Your task to perform on an android device: allow cookies in the chrome app Image 0: 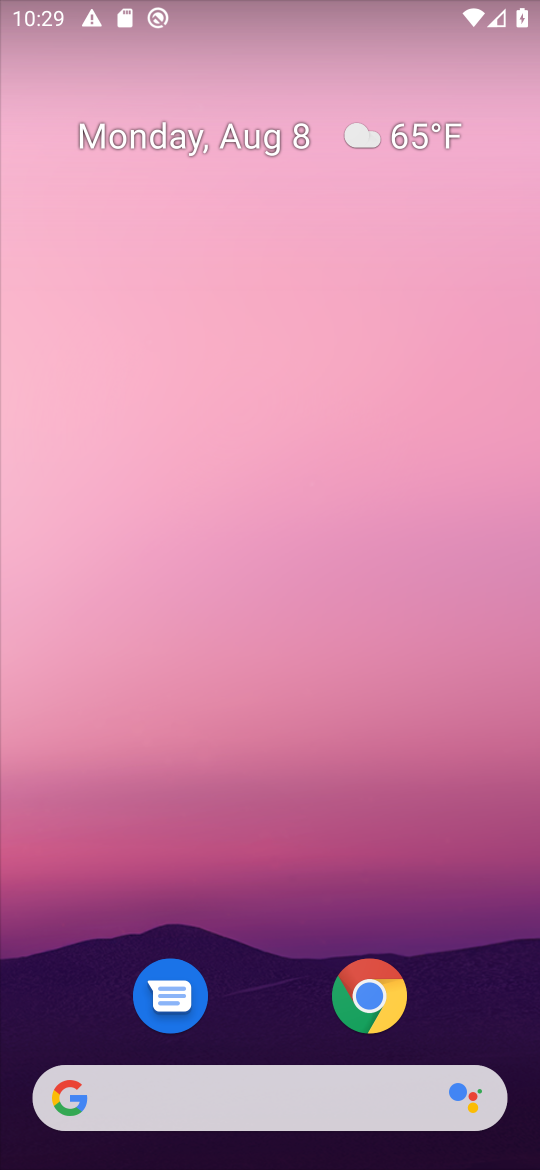
Step 0: press home button
Your task to perform on an android device: allow cookies in the chrome app Image 1: 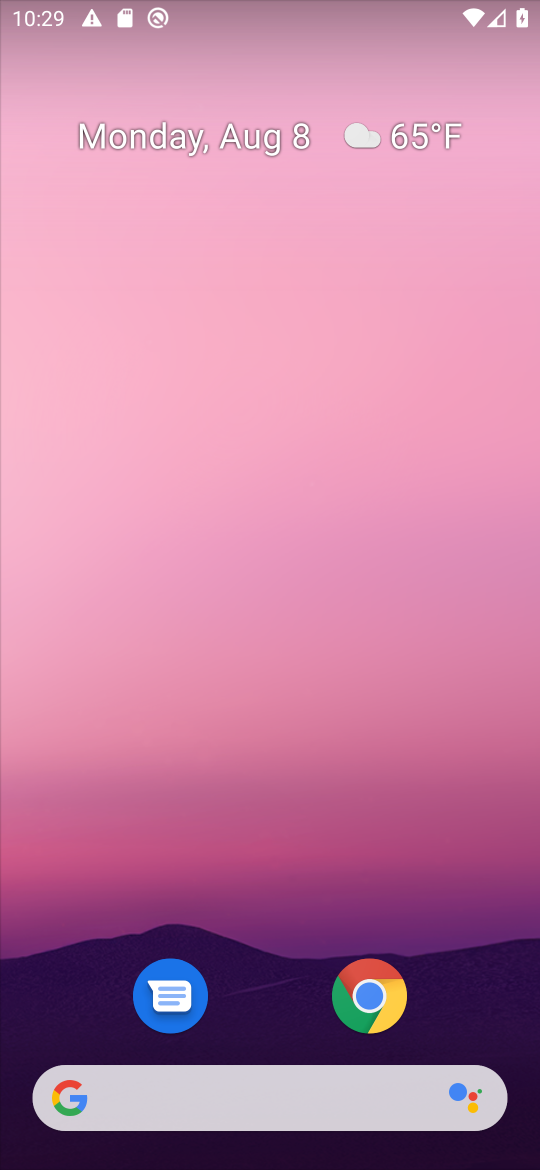
Step 1: click (372, 1012)
Your task to perform on an android device: allow cookies in the chrome app Image 2: 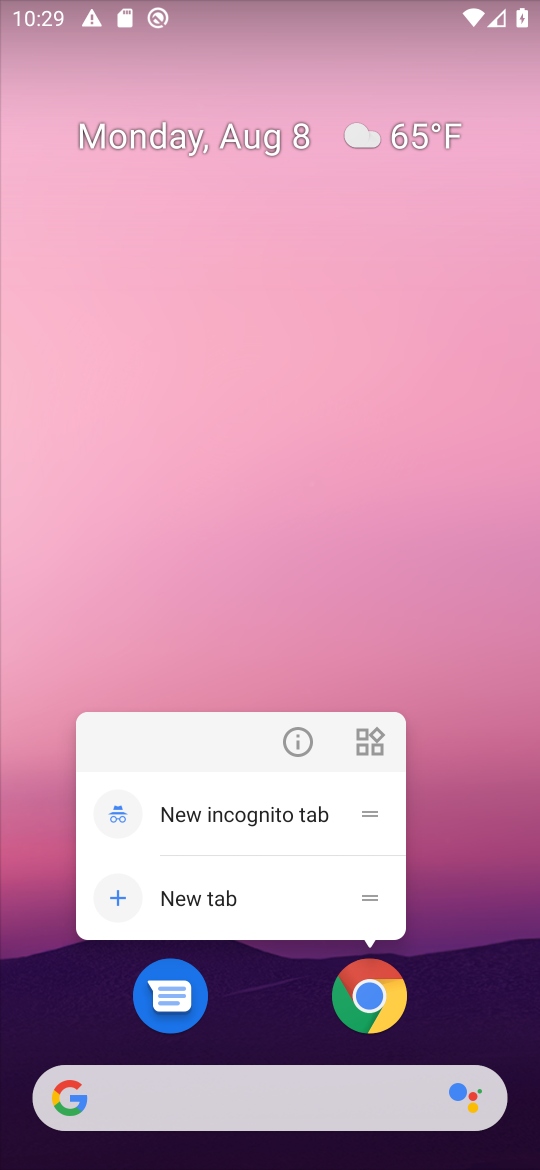
Step 2: click (372, 1012)
Your task to perform on an android device: allow cookies in the chrome app Image 3: 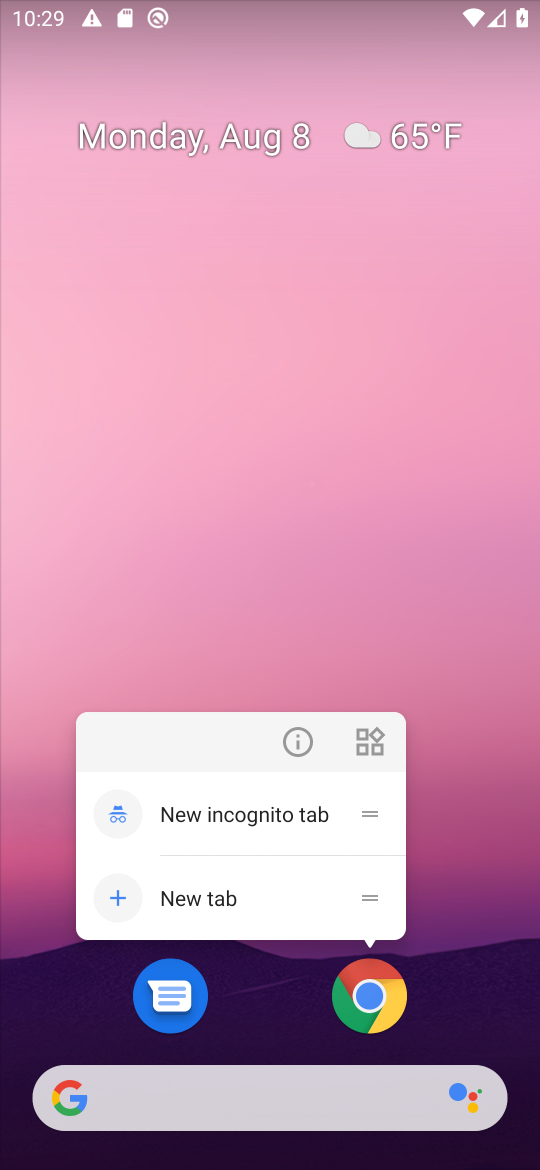
Step 3: click (372, 1012)
Your task to perform on an android device: allow cookies in the chrome app Image 4: 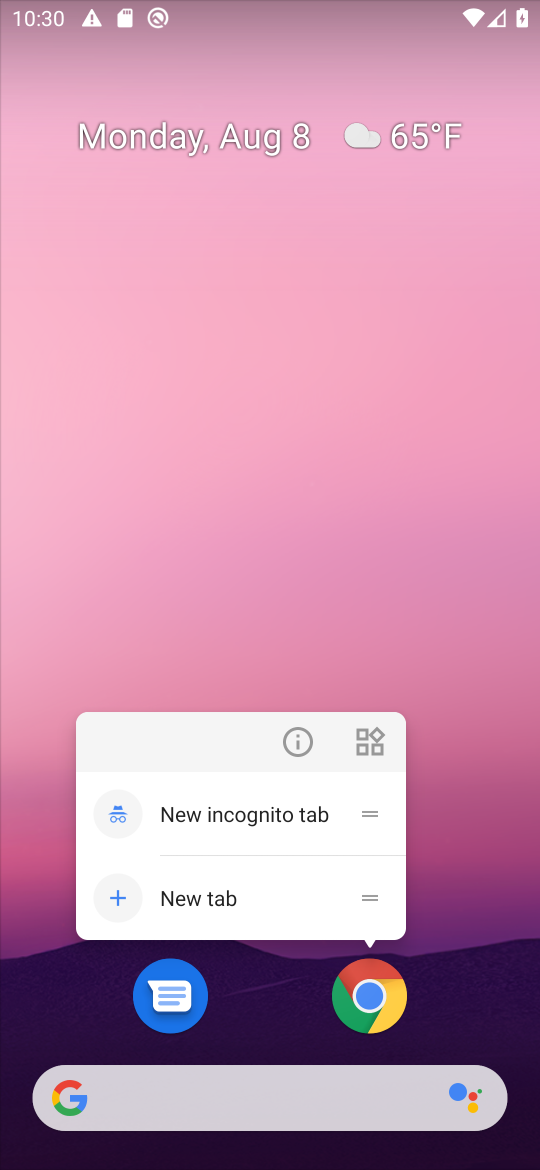
Step 4: click (454, 990)
Your task to perform on an android device: allow cookies in the chrome app Image 5: 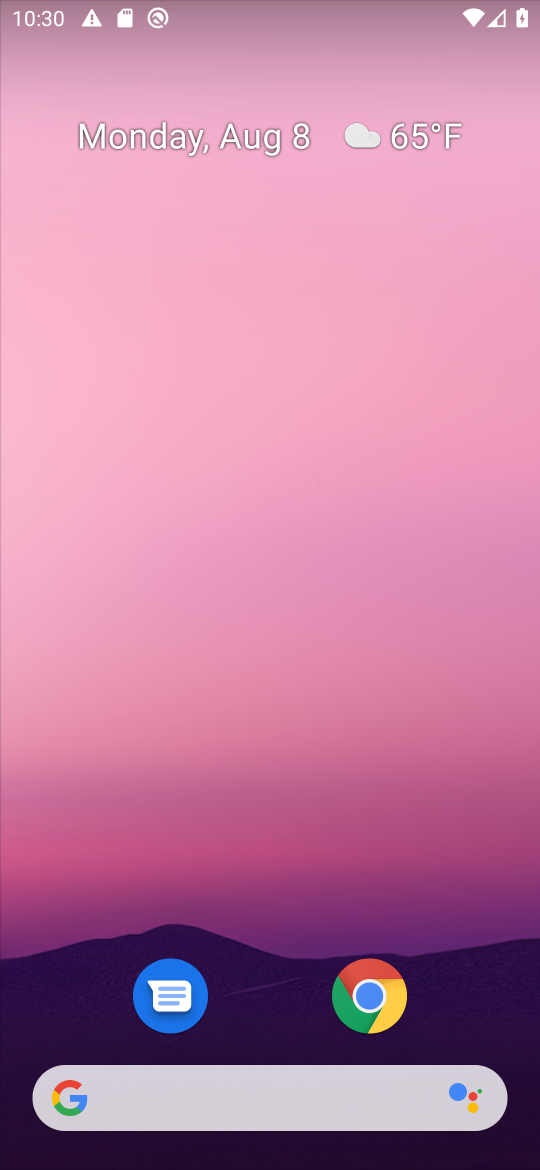
Step 5: drag from (273, 977) to (61, 172)
Your task to perform on an android device: allow cookies in the chrome app Image 6: 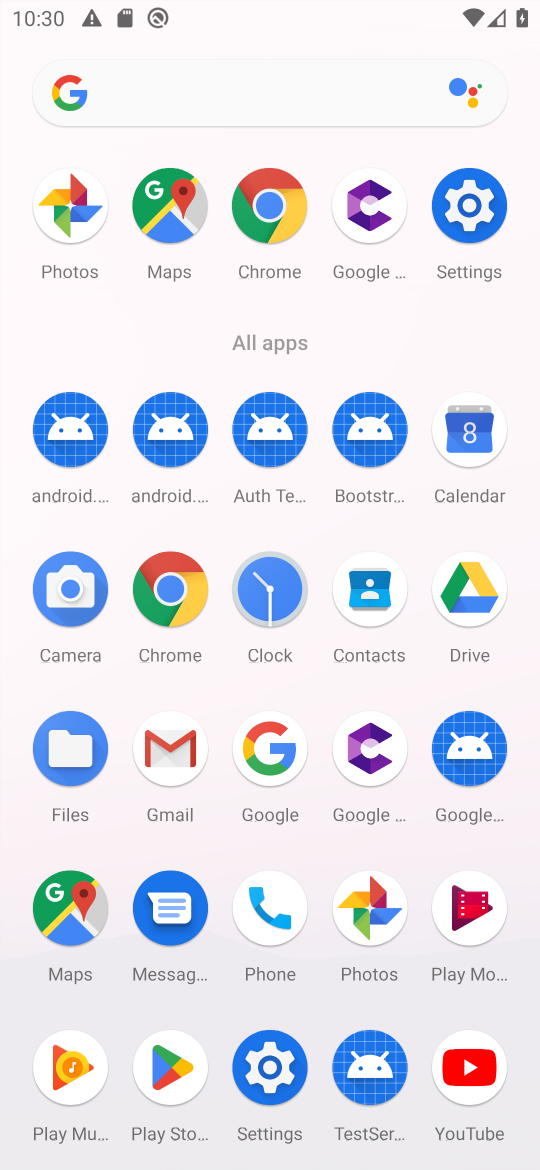
Step 6: click (277, 214)
Your task to perform on an android device: allow cookies in the chrome app Image 7: 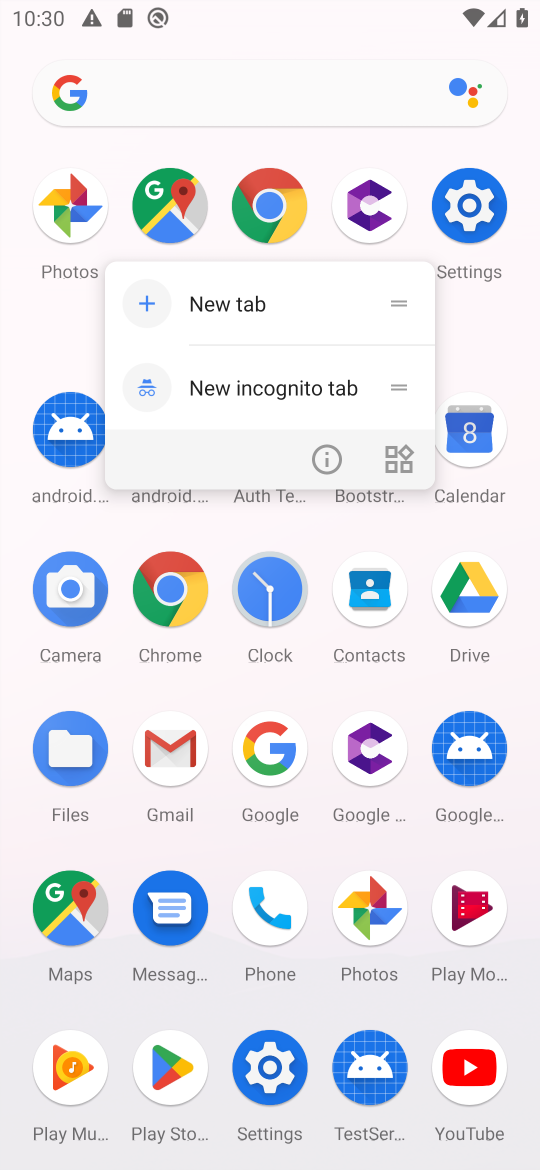
Step 7: click (277, 214)
Your task to perform on an android device: allow cookies in the chrome app Image 8: 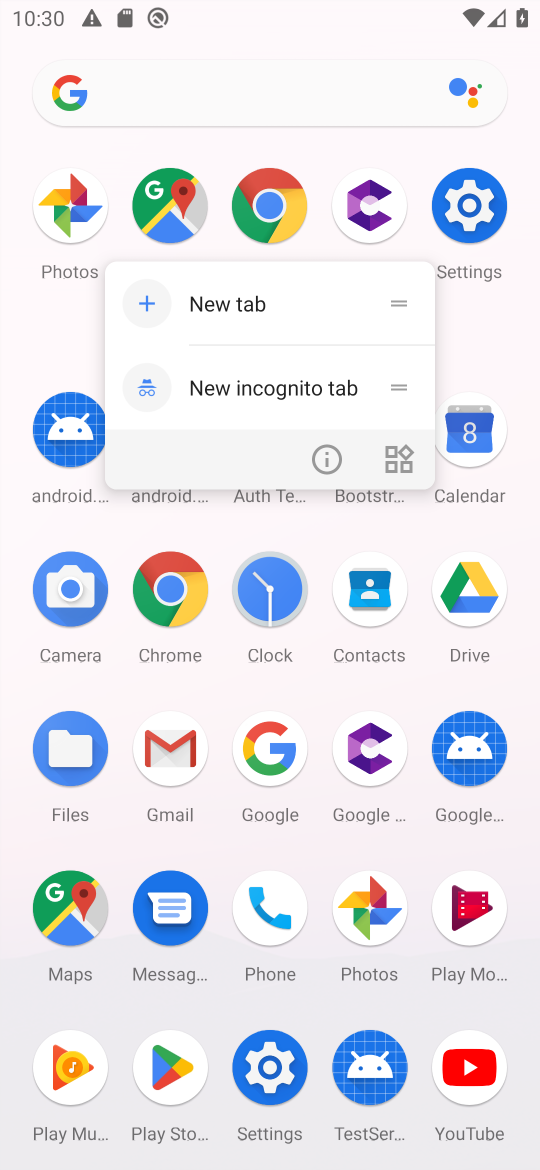
Step 8: click (277, 214)
Your task to perform on an android device: allow cookies in the chrome app Image 9: 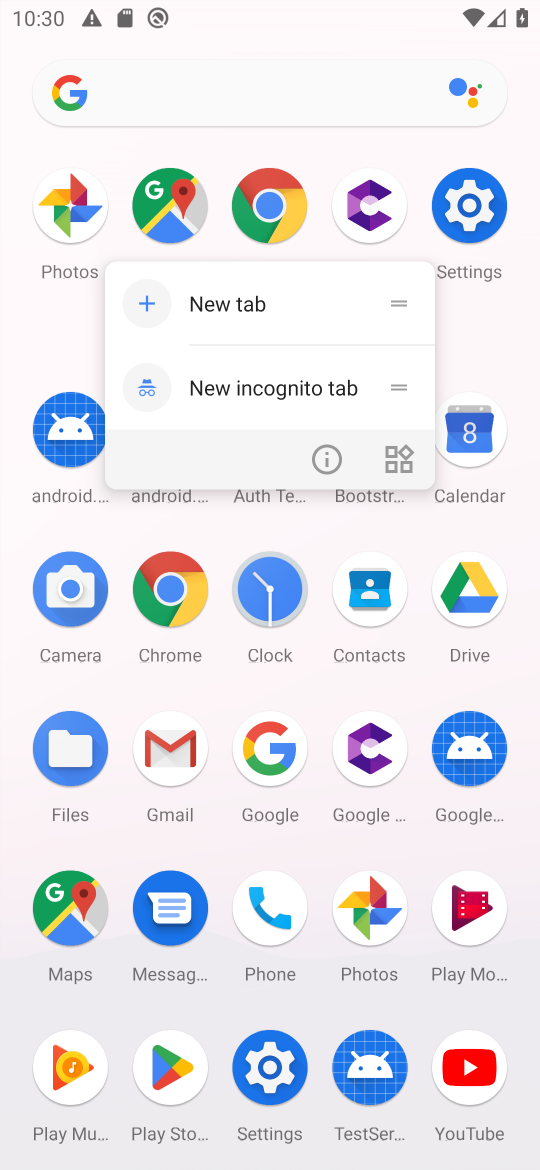
Step 9: click (165, 605)
Your task to perform on an android device: allow cookies in the chrome app Image 10: 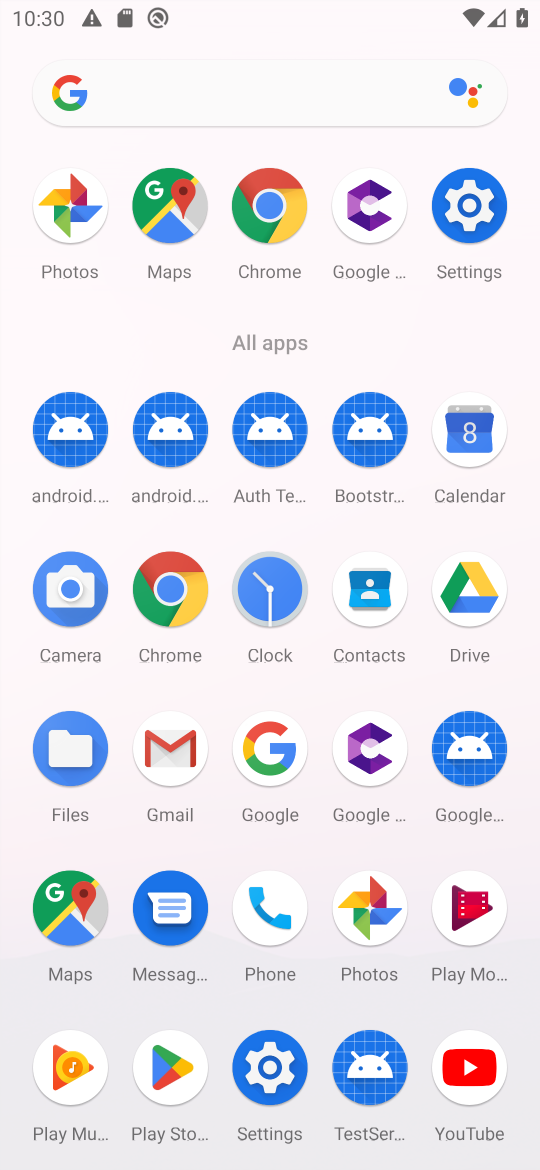
Step 10: click (177, 581)
Your task to perform on an android device: allow cookies in the chrome app Image 11: 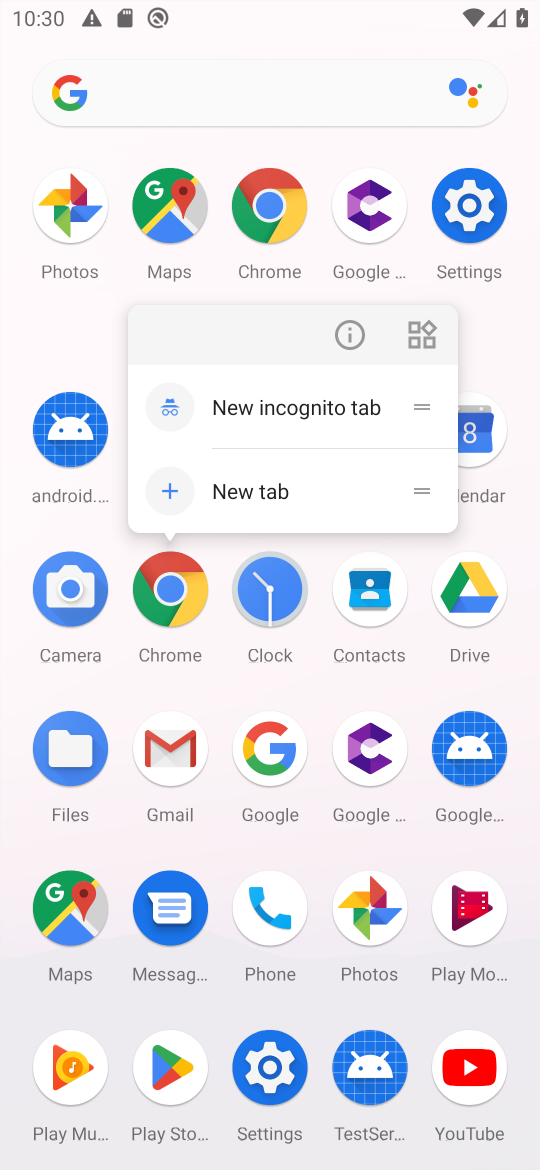
Step 11: click (166, 601)
Your task to perform on an android device: allow cookies in the chrome app Image 12: 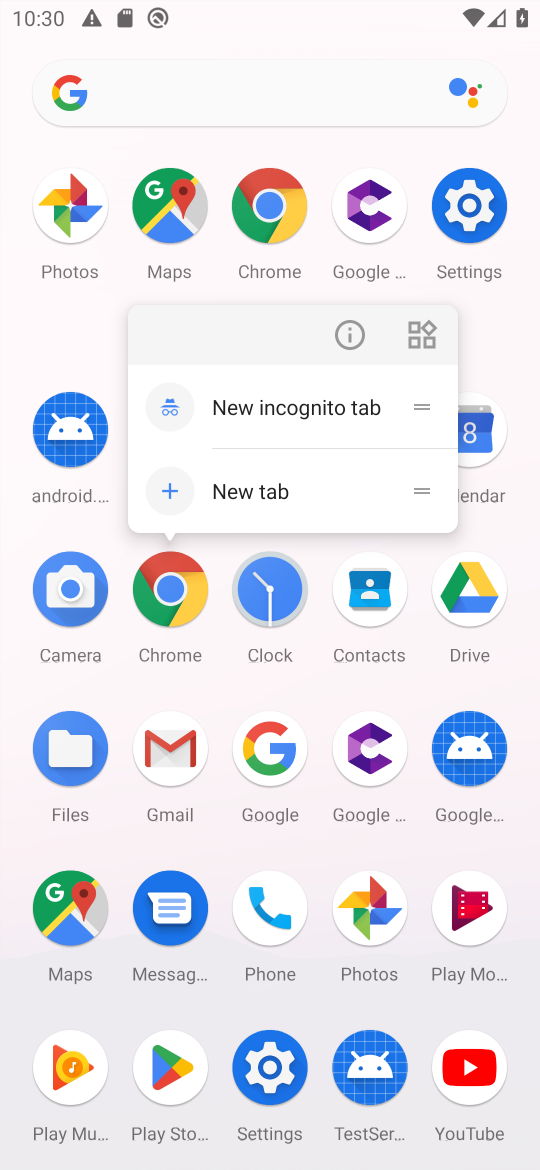
Step 12: click (166, 601)
Your task to perform on an android device: allow cookies in the chrome app Image 13: 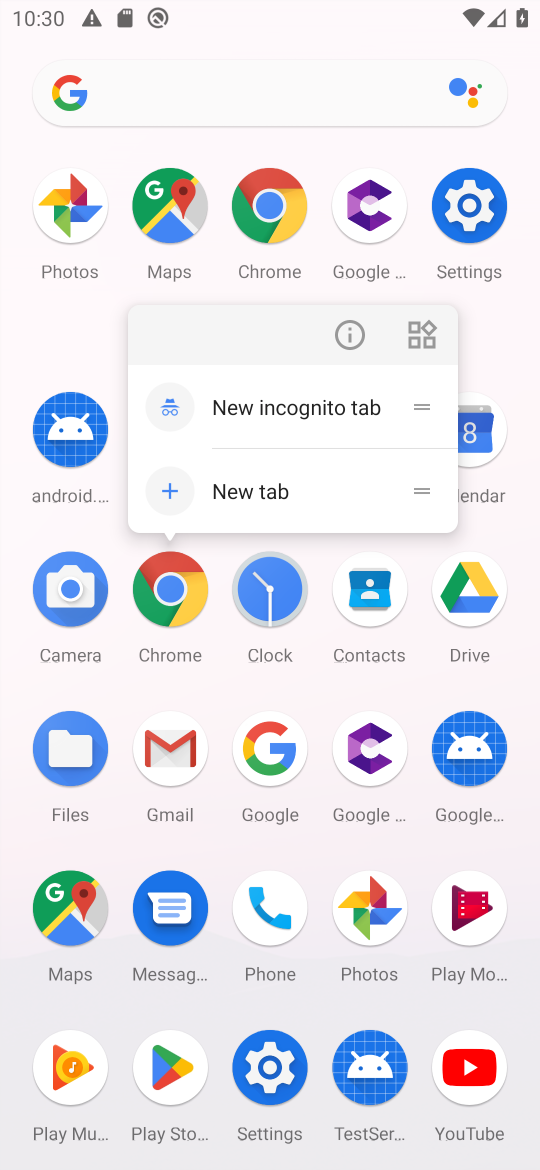
Step 13: click (153, 601)
Your task to perform on an android device: allow cookies in the chrome app Image 14: 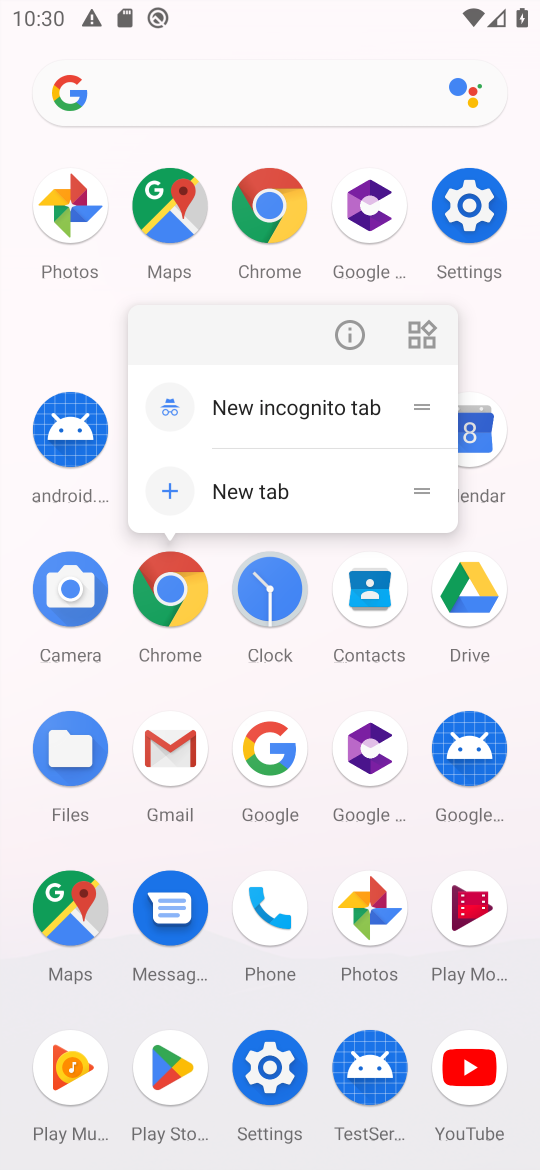
Step 14: click (178, 590)
Your task to perform on an android device: allow cookies in the chrome app Image 15: 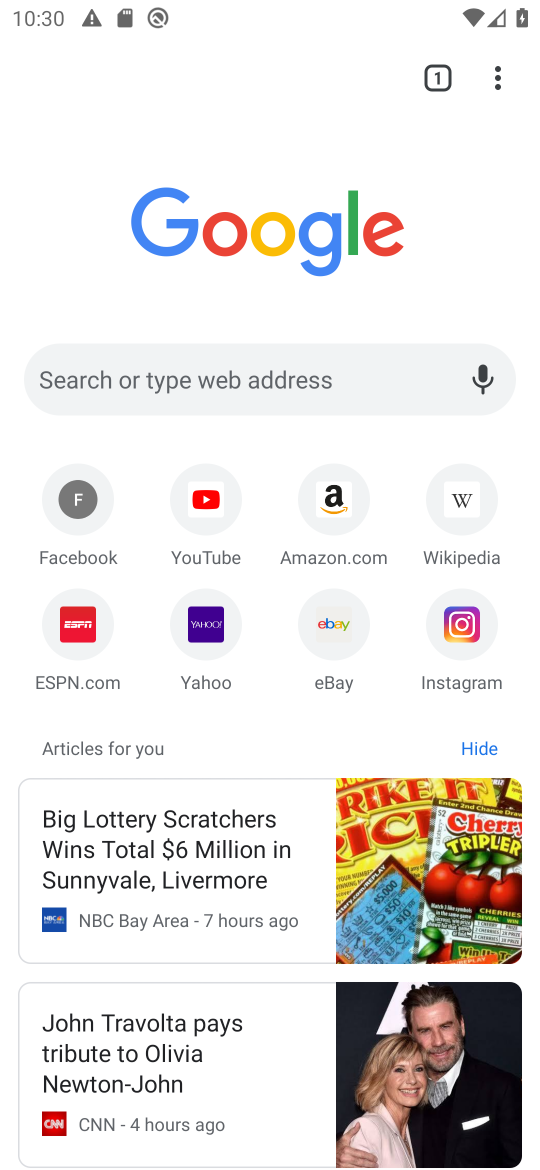
Step 15: drag from (506, 78) to (263, 738)
Your task to perform on an android device: allow cookies in the chrome app Image 16: 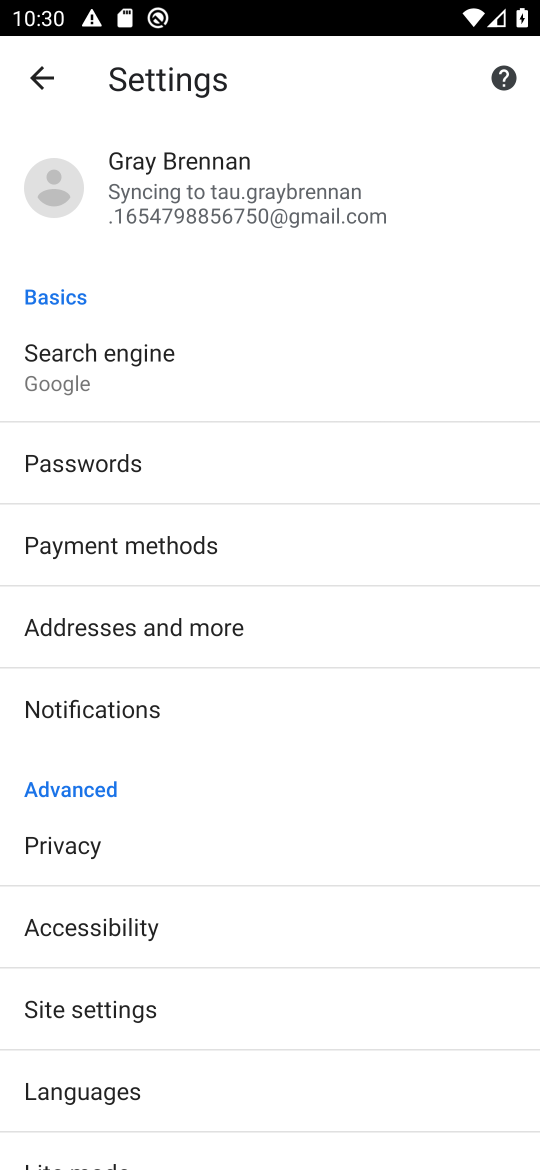
Step 16: click (75, 1015)
Your task to perform on an android device: allow cookies in the chrome app Image 17: 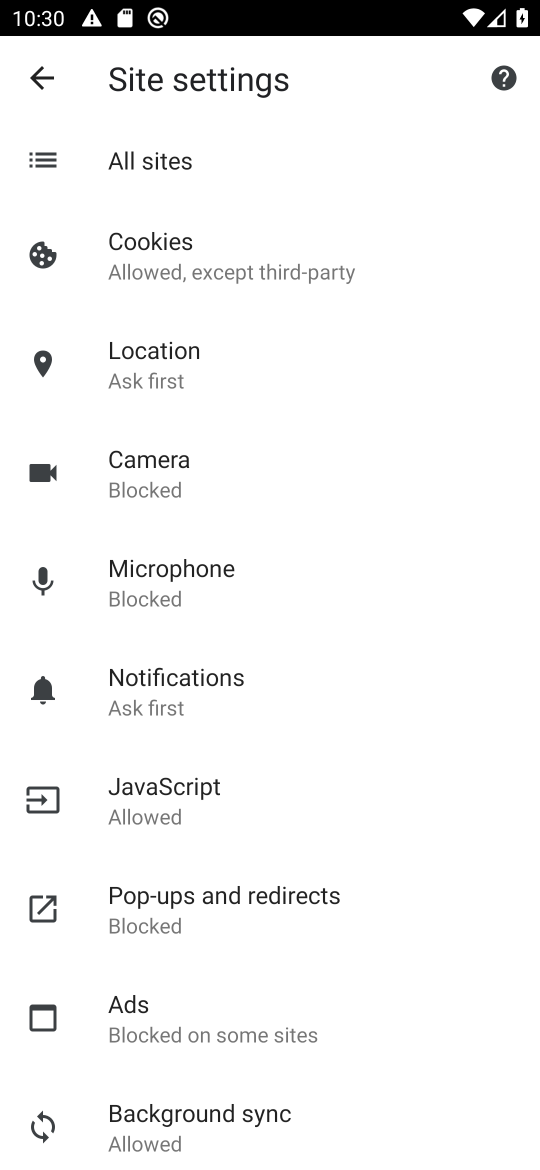
Step 17: click (155, 258)
Your task to perform on an android device: allow cookies in the chrome app Image 18: 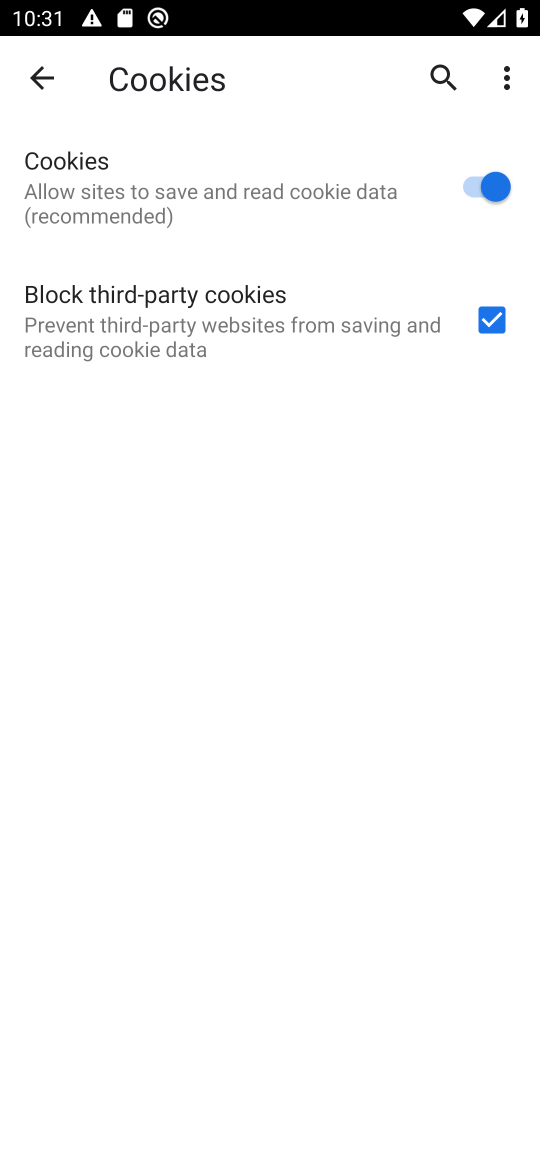
Step 18: task complete